Your task to perform on an android device: Open Google Maps and go to "Timeline" Image 0: 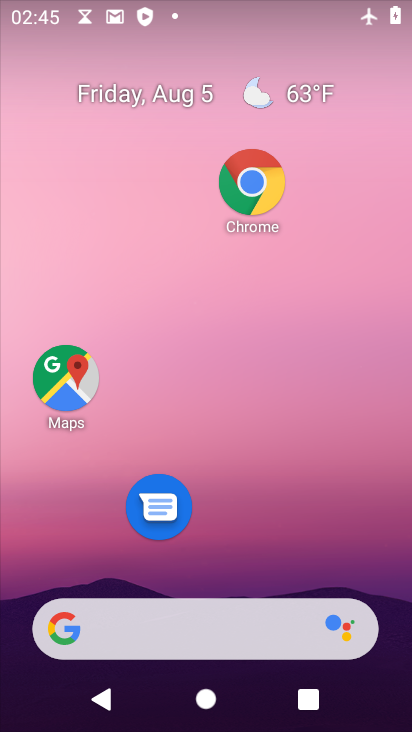
Step 0: drag from (189, 587) to (189, 27)
Your task to perform on an android device: Open Google Maps and go to "Timeline" Image 1: 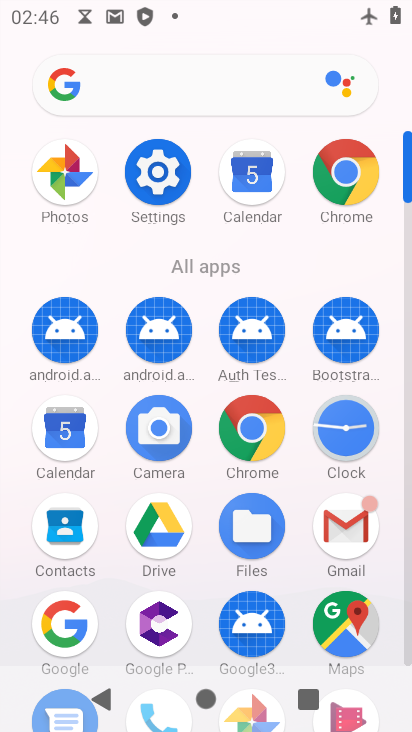
Step 1: drag from (190, 564) to (198, 277)
Your task to perform on an android device: Open Google Maps and go to "Timeline" Image 2: 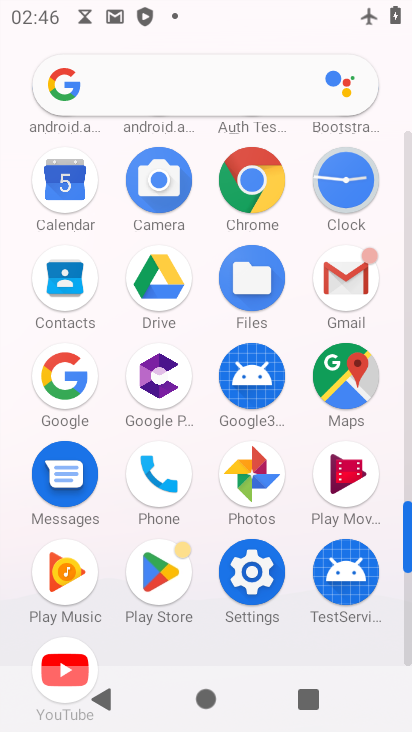
Step 2: click (349, 394)
Your task to perform on an android device: Open Google Maps and go to "Timeline" Image 3: 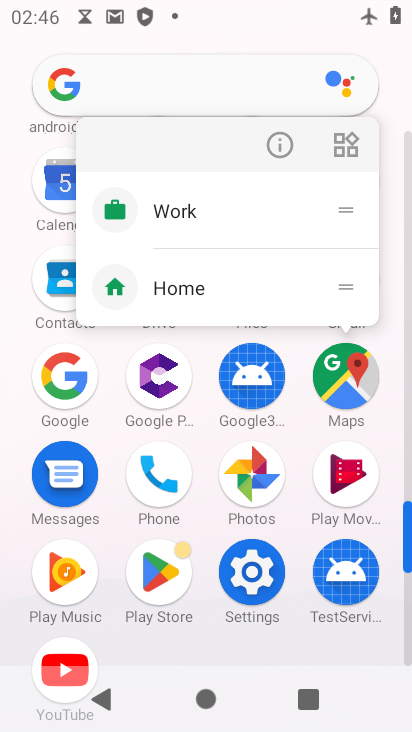
Step 3: click (349, 394)
Your task to perform on an android device: Open Google Maps and go to "Timeline" Image 4: 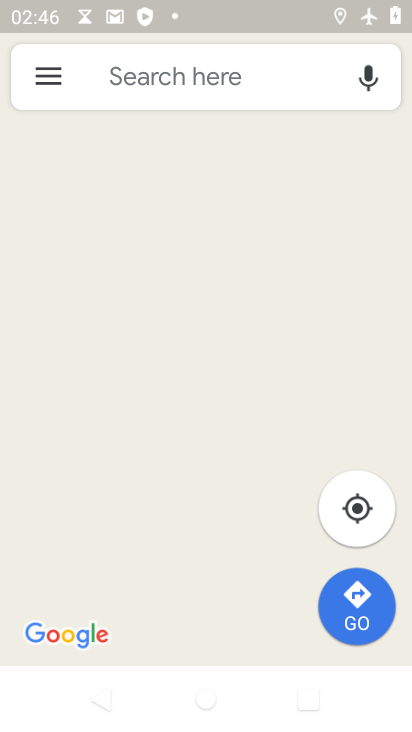
Step 4: click (43, 81)
Your task to perform on an android device: Open Google Maps and go to "Timeline" Image 5: 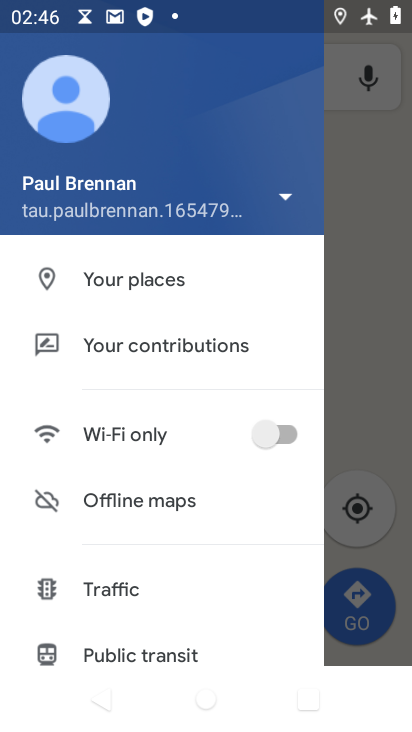
Step 5: drag from (122, 492) to (161, 324)
Your task to perform on an android device: Open Google Maps and go to "Timeline" Image 6: 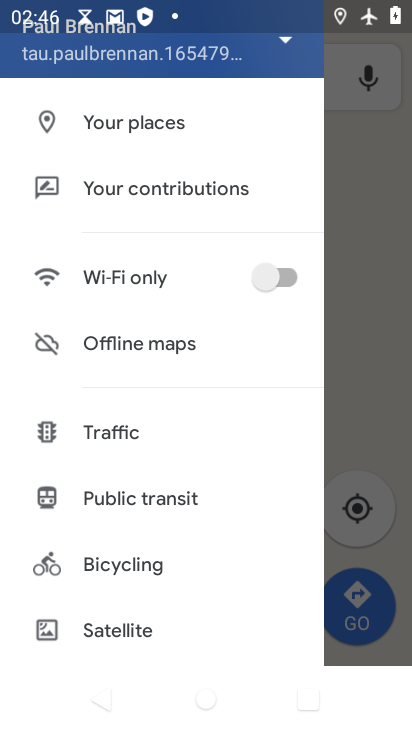
Step 6: click (181, 201)
Your task to perform on an android device: Open Google Maps and go to "Timeline" Image 7: 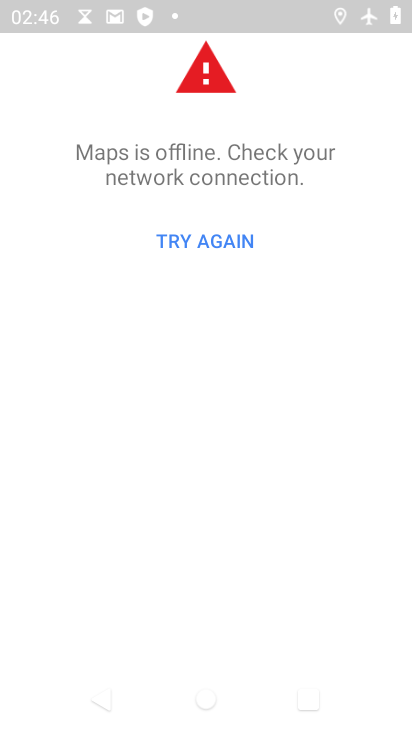
Step 7: task complete